Your task to perform on an android device: turn off location history Image 0: 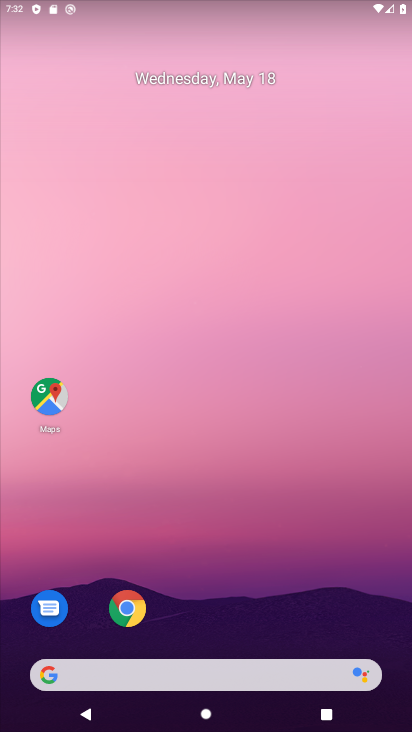
Step 0: drag from (342, 648) to (316, 143)
Your task to perform on an android device: turn off location history Image 1: 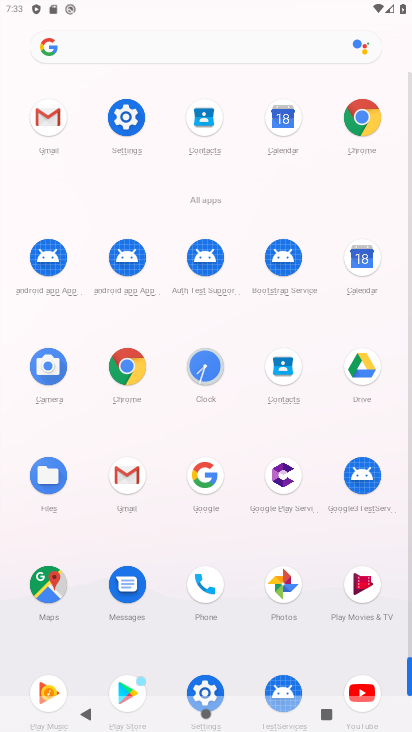
Step 1: click (131, 122)
Your task to perform on an android device: turn off location history Image 2: 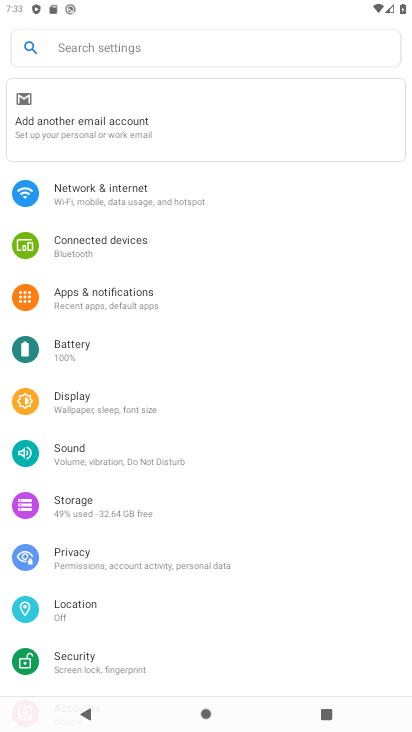
Step 2: click (107, 609)
Your task to perform on an android device: turn off location history Image 3: 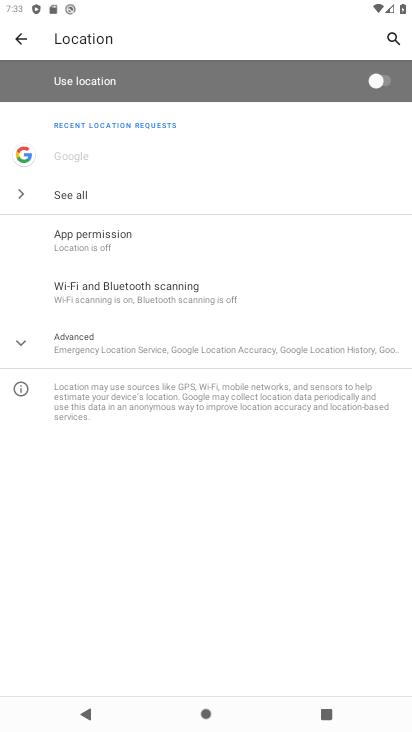
Step 3: click (133, 358)
Your task to perform on an android device: turn off location history Image 4: 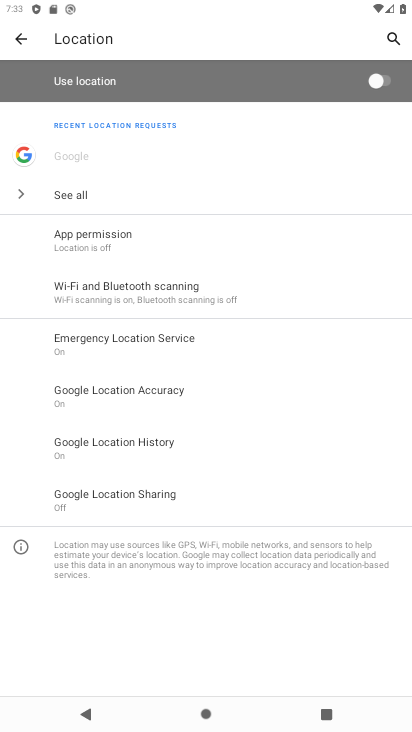
Step 4: click (165, 440)
Your task to perform on an android device: turn off location history Image 5: 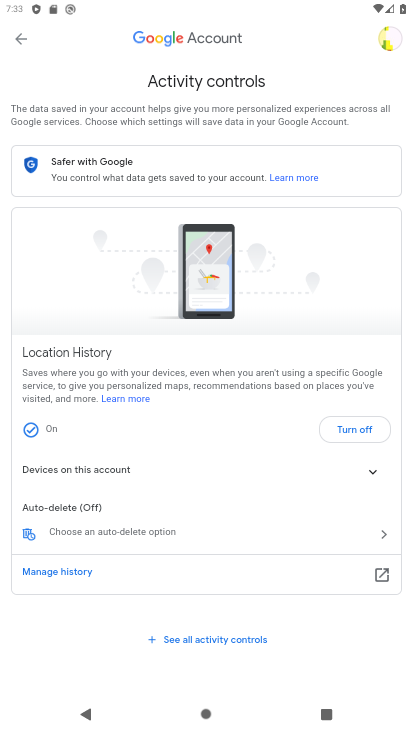
Step 5: click (351, 430)
Your task to perform on an android device: turn off location history Image 6: 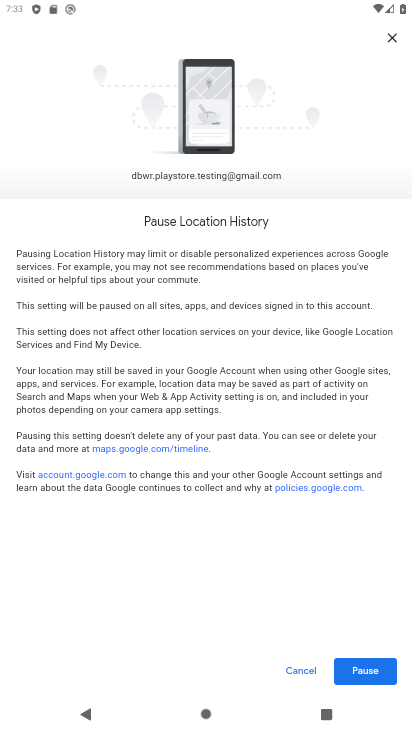
Step 6: click (348, 672)
Your task to perform on an android device: turn off location history Image 7: 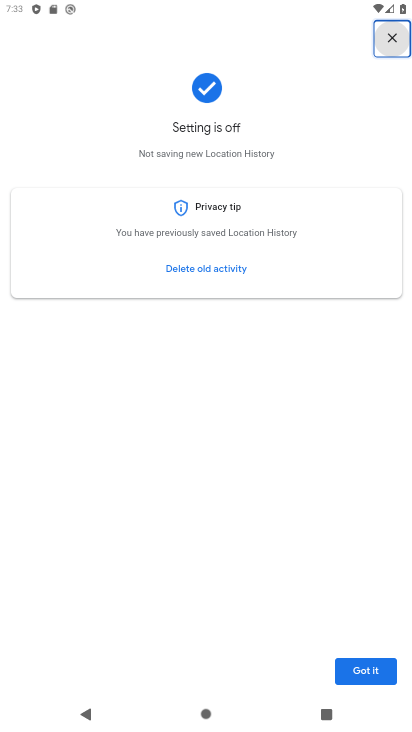
Step 7: click (348, 671)
Your task to perform on an android device: turn off location history Image 8: 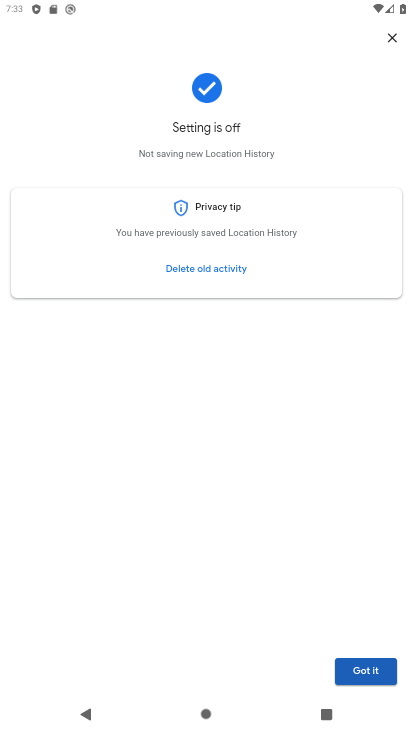
Step 8: click (357, 666)
Your task to perform on an android device: turn off location history Image 9: 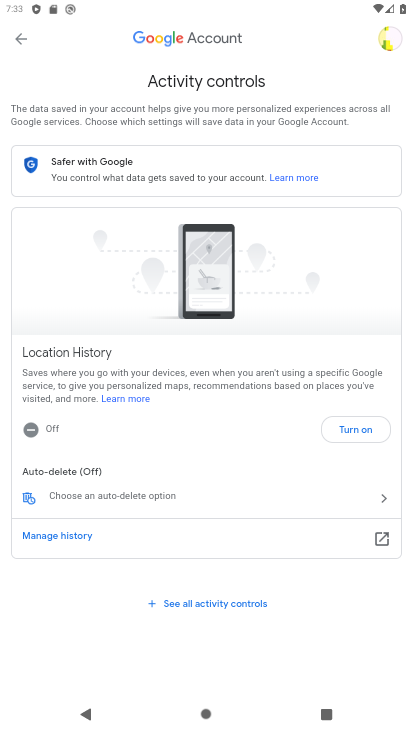
Step 9: task complete